Your task to perform on an android device: Go to Reddit.com Image 0: 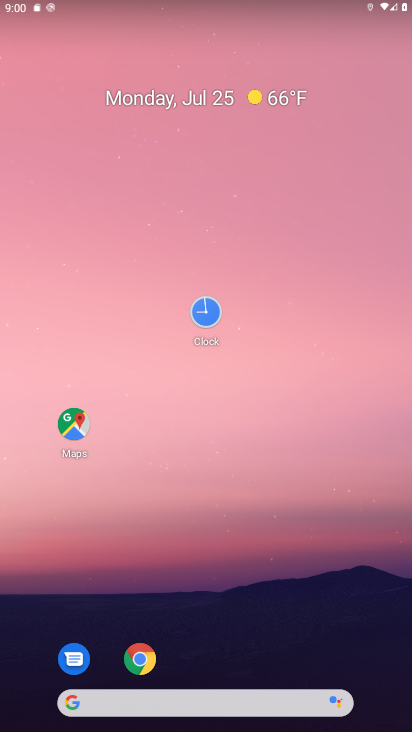
Step 0: drag from (244, 598) to (224, 121)
Your task to perform on an android device: Go to Reddit.com Image 1: 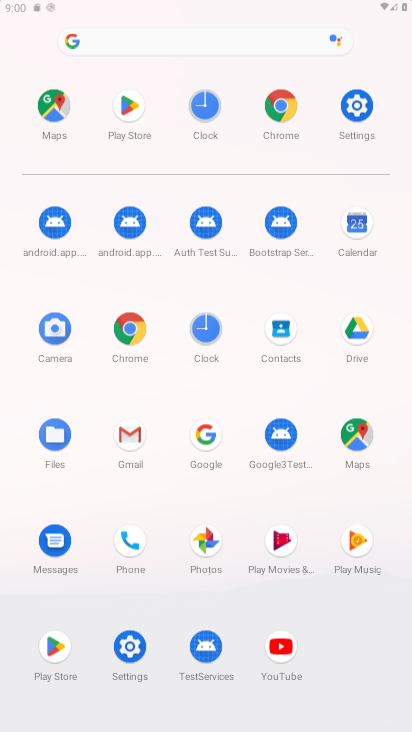
Step 1: drag from (257, 453) to (257, 53)
Your task to perform on an android device: Go to Reddit.com Image 2: 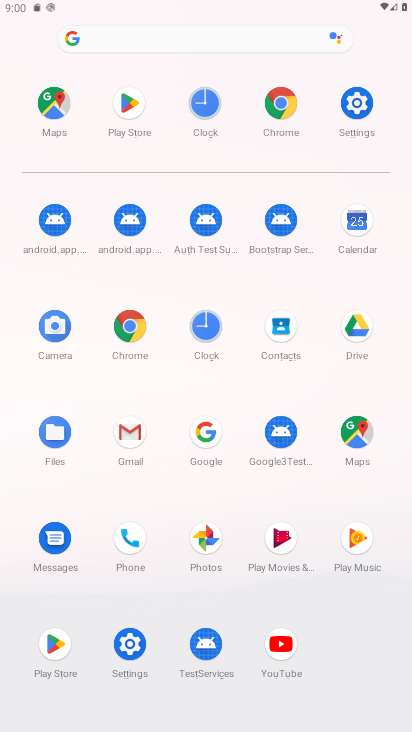
Step 2: drag from (332, 422) to (291, 222)
Your task to perform on an android device: Go to Reddit.com Image 3: 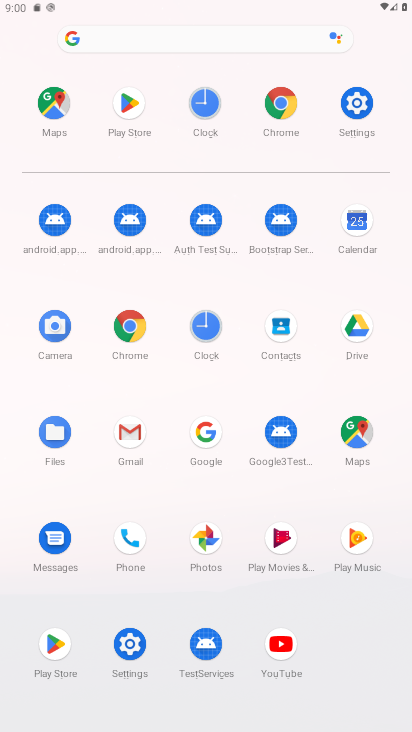
Step 3: click (294, 99)
Your task to perform on an android device: Go to Reddit.com Image 4: 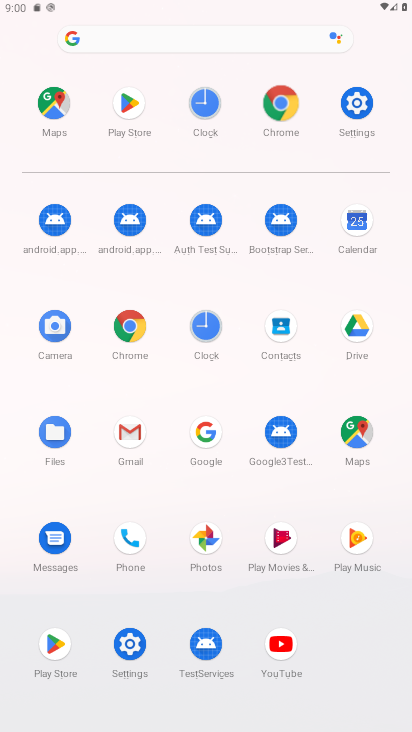
Step 4: click (291, 102)
Your task to perform on an android device: Go to Reddit.com Image 5: 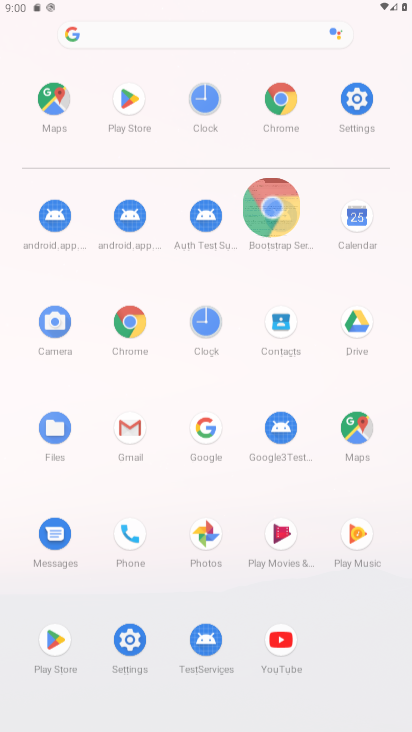
Step 5: click (295, 104)
Your task to perform on an android device: Go to Reddit.com Image 6: 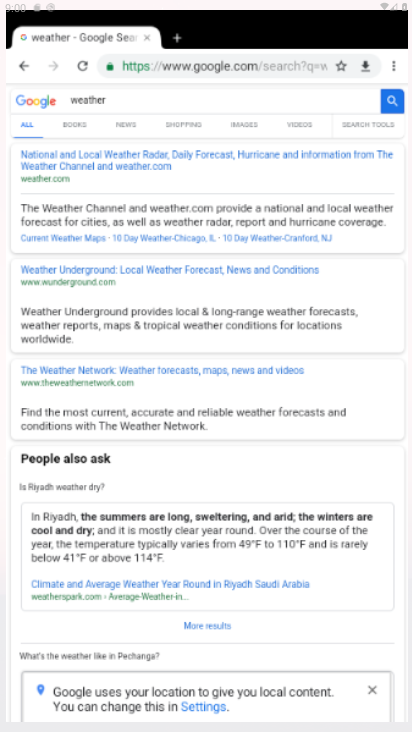
Step 6: click (297, 106)
Your task to perform on an android device: Go to Reddit.com Image 7: 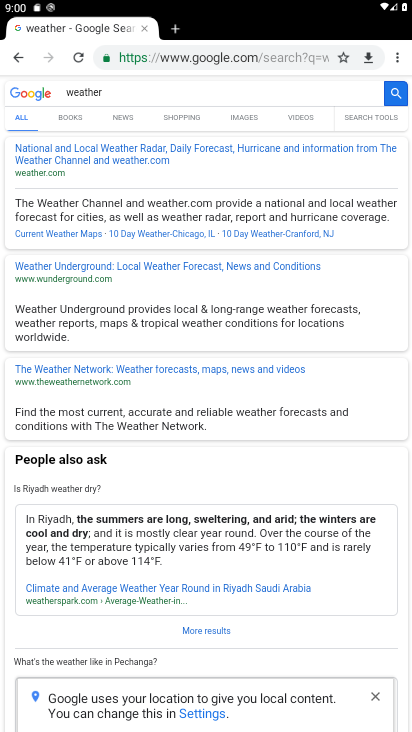
Step 7: click (143, 23)
Your task to perform on an android device: Go to Reddit.com Image 8: 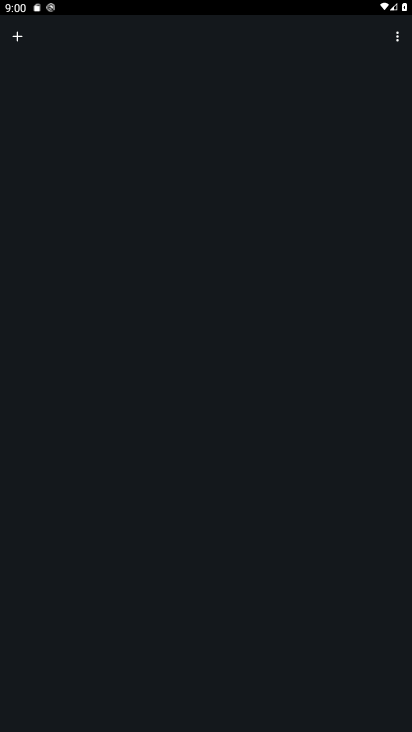
Step 8: click (173, 27)
Your task to perform on an android device: Go to Reddit.com Image 9: 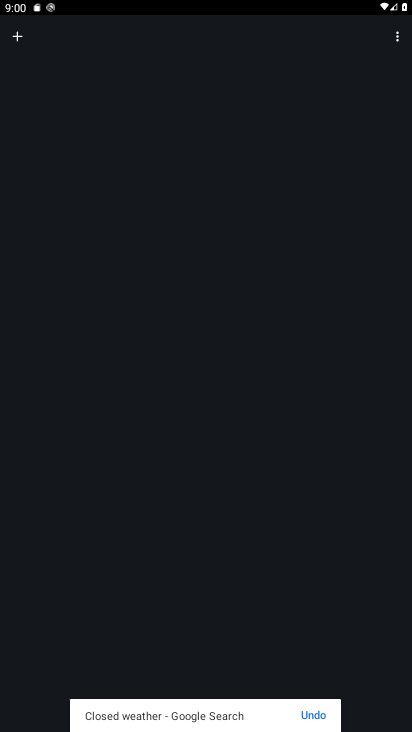
Step 9: click (17, 37)
Your task to perform on an android device: Go to Reddit.com Image 10: 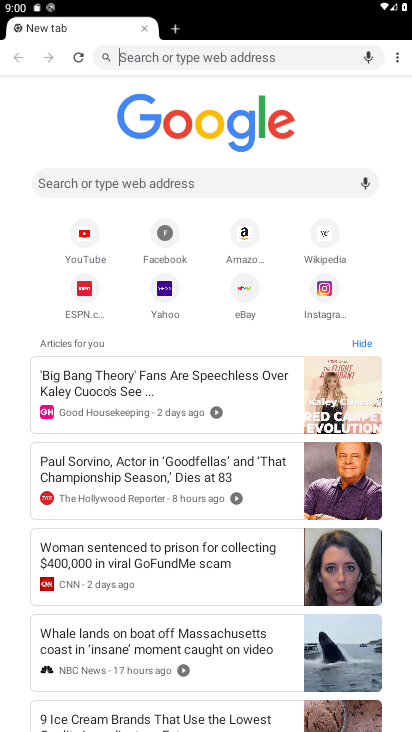
Step 10: click (124, 47)
Your task to perform on an android device: Go to Reddit.com Image 11: 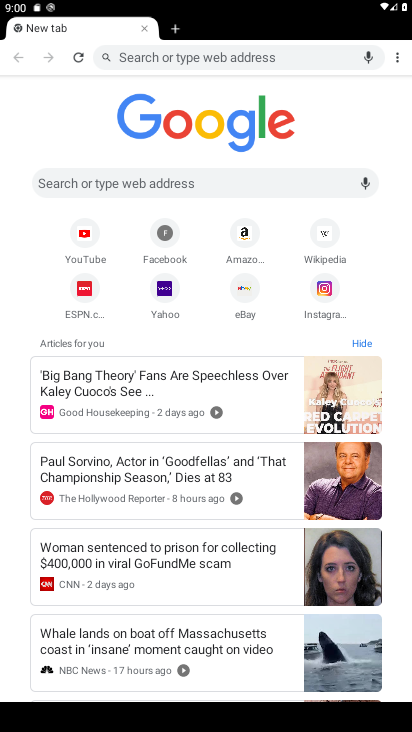
Step 11: type "reddit.com"
Your task to perform on an android device: Go to Reddit.com Image 12: 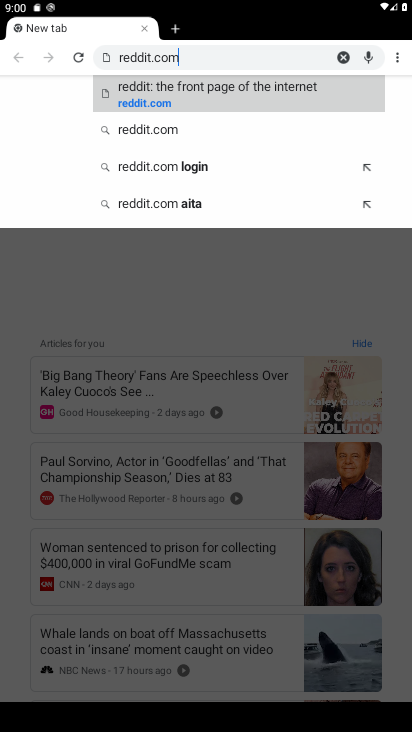
Step 12: click (185, 94)
Your task to perform on an android device: Go to Reddit.com Image 13: 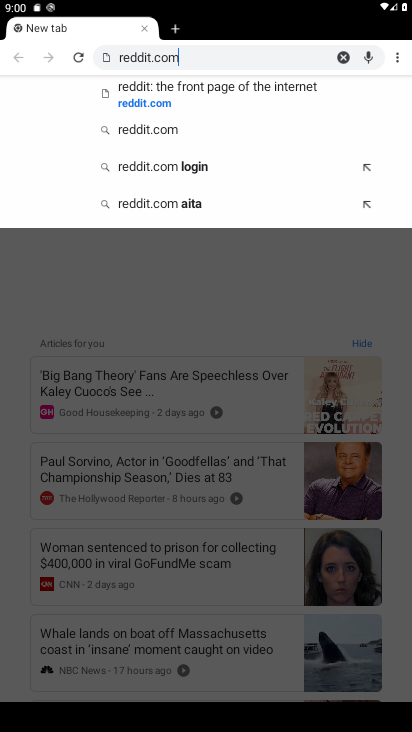
Step 13: click (182, 91)
Your task to perform on an android device: Go to Reddit.com Image 14: 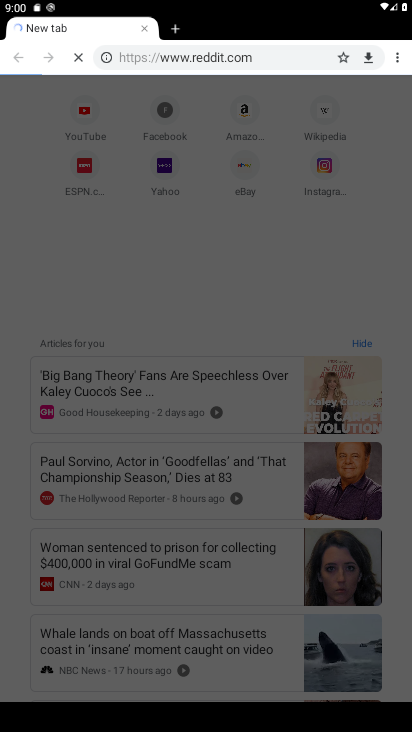
Step 14: task complete